Your task to perform on an android device: Open privacy settings Image 0: 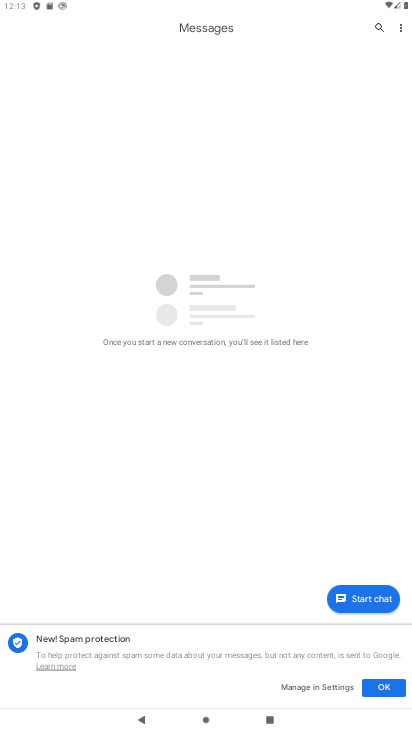
Step 0: press home button
Your task to perform on an android device: Open privacy settings Image 1: 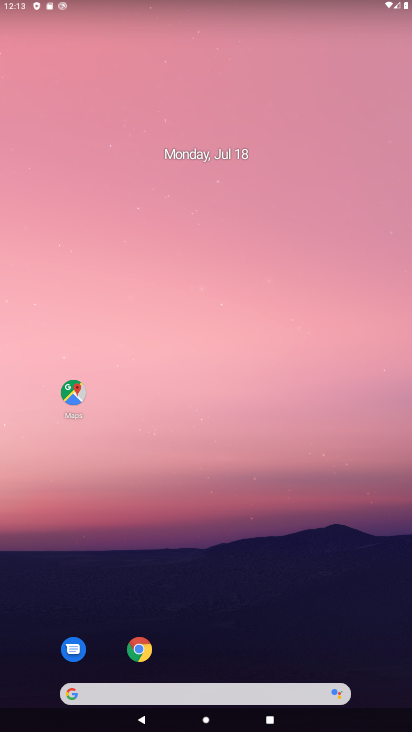
Step 1: drag from (102, 583) to (299, 107)
Your task to perform on an android device: Open privacy settings Image 2: 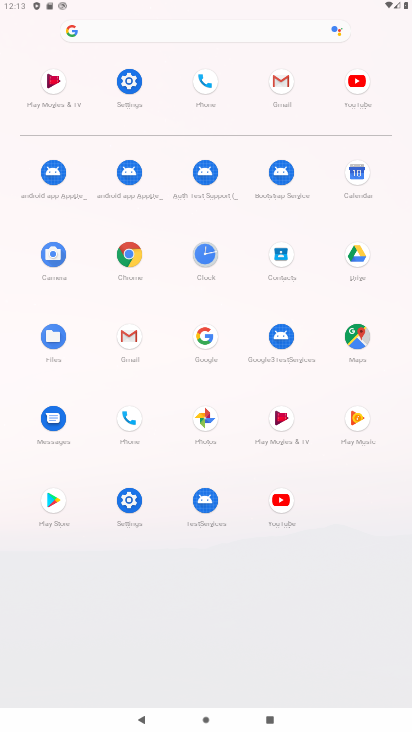
Step 2: click (118, 493)
Your task to perform on an android device: Open privacy settings Image 3: 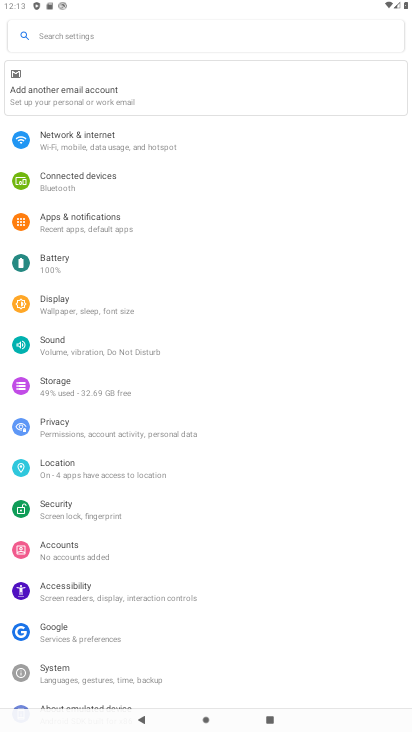
Step 3: click (95, 432)
Your task to perform on an android device: Open privacy settings Image 4: 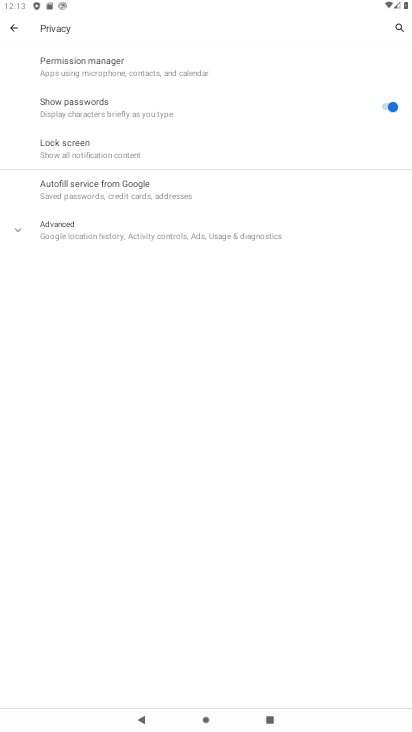
Step 4: task complete